Your task to perform on an android device: turn off picture-in-picture Image 0: 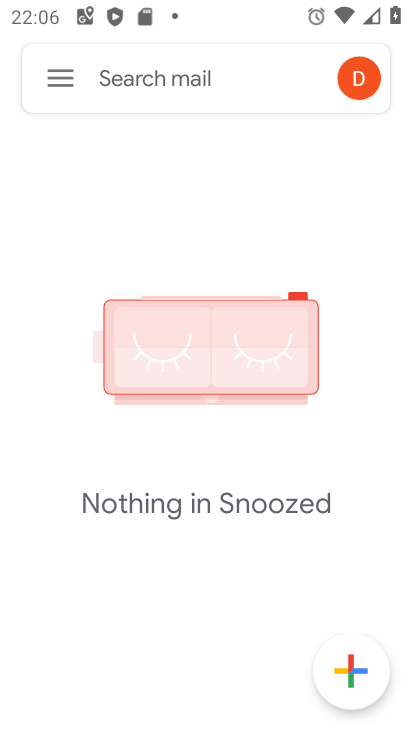
Step 0: press home button
Your task to perform on an android device: turn off picture-in-picture Image 1: 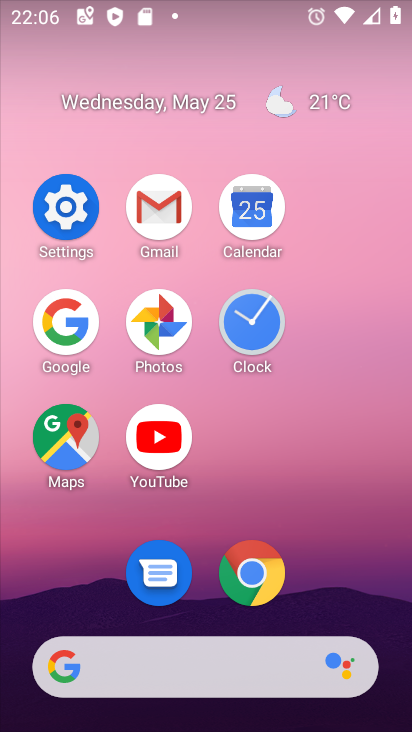
Step 1: click (253, 572)
Your task to perform on an android device: turn off picture-in-picture Image 2: 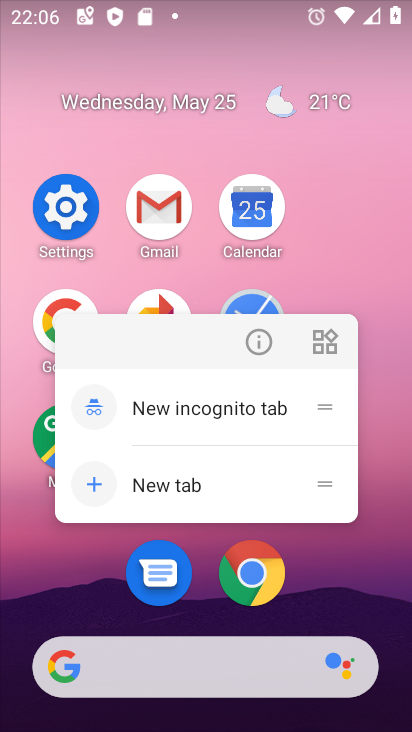
Step 2: click (256, 354)
Your task to perform on an android device: turn off picture-in-picture Image 3: 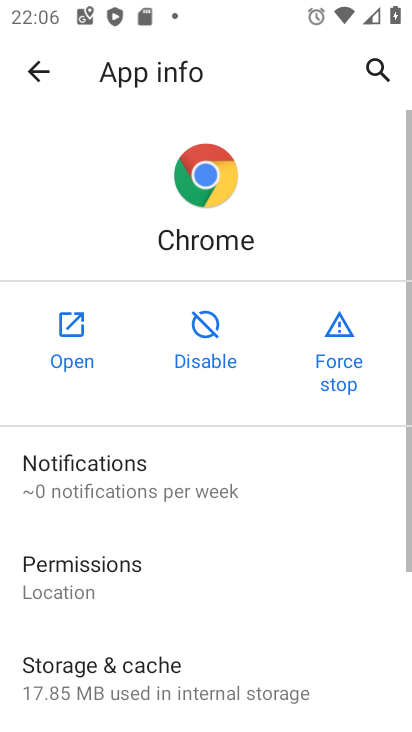
Step 3: drag from (287, 604) to (290, 159)
Your task to perform on an android device: turn off picture-in-picture Image 4: 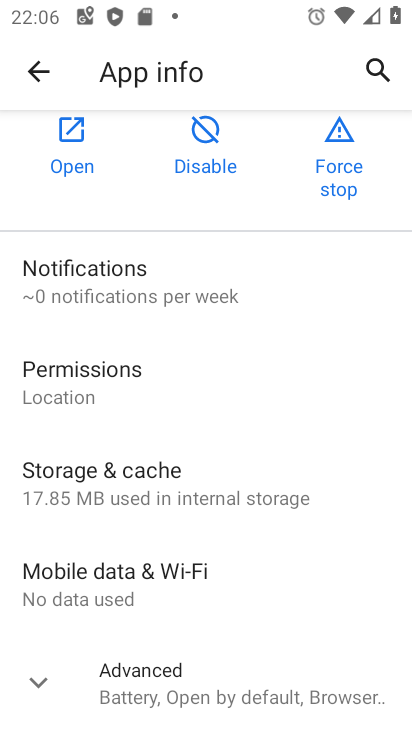
Step 4: click (222, 667)
Your task to perform on an android device: turn off picture-in-picture Image 5: 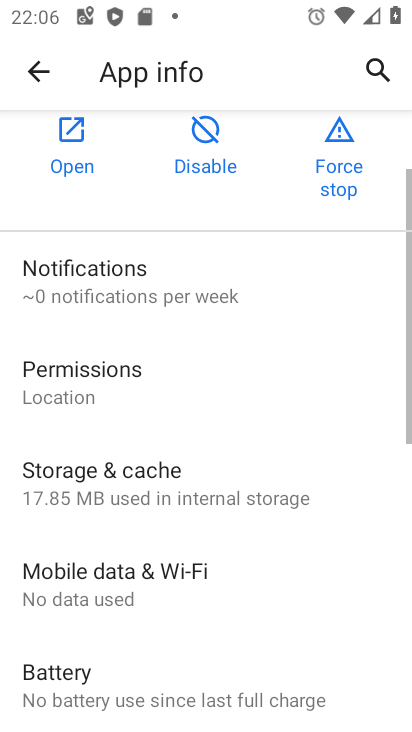
Step 5: drag from (222, 667) to (236, 176)
Your task to perform on an android device: turn off picture-in-picture Image 6: 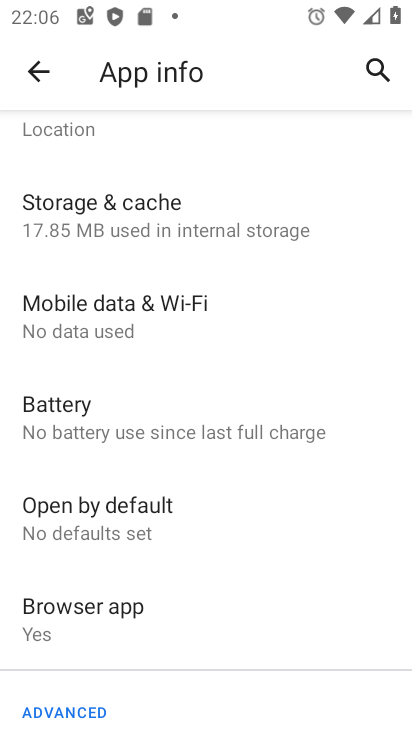
Step 6: drag from (188, 597) to (233, 220)
Your task to perform on an android device: turn off picture-in-picture Image 7: 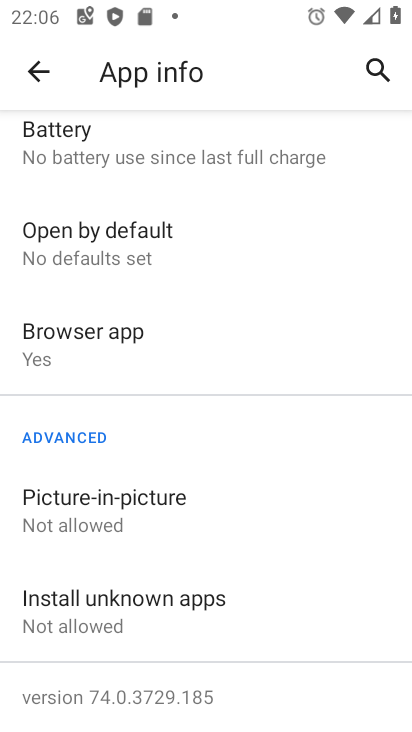
Step 7: click (187, 511)
Your task to perform on an android device: turn off picture-in-picture Image 8: 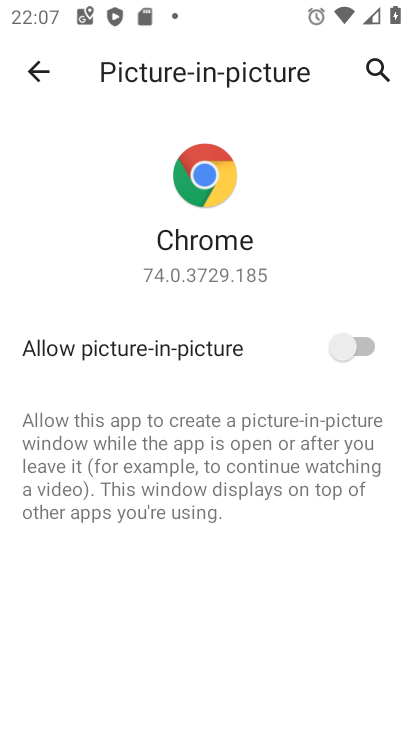
Step 8: task complete